Your task to perform on an android device: Open Google Maps Image 0: 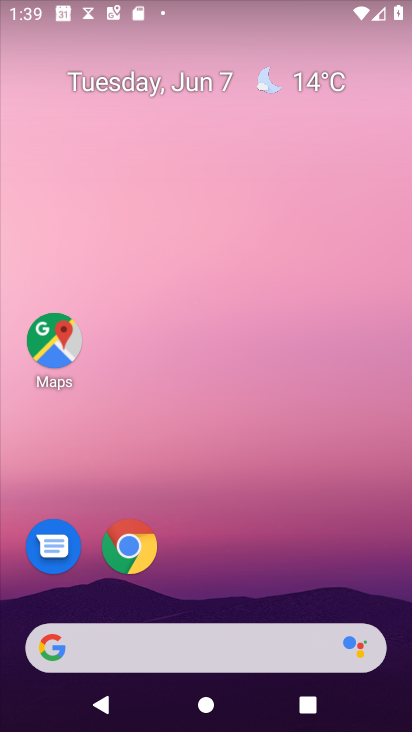
Step 0: press home button
Your task to perform on an android device: Open Google Maps Image 1: 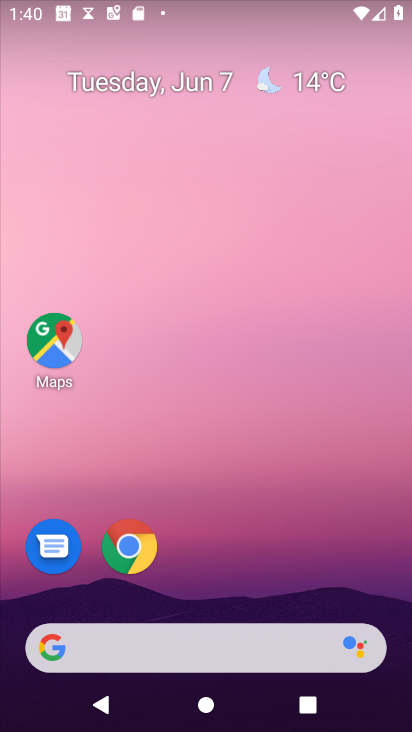
Step 1: click (48, 338)
Your task to perform on an android device: Open Google Maps Image 2: 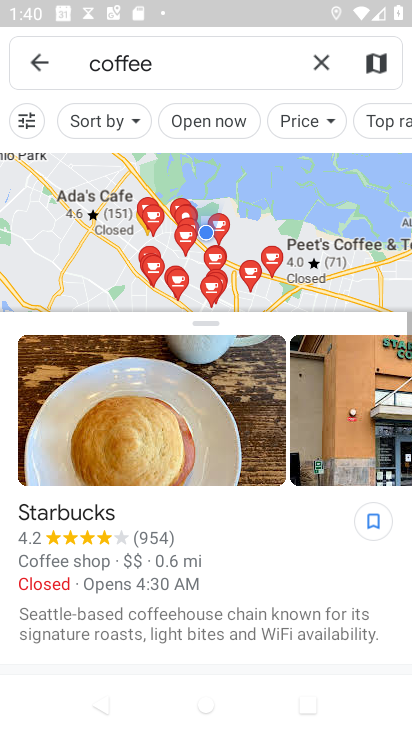
Step 2: click (315, 61)
Your task to perform on an android device: Open Google Maps Image 3: 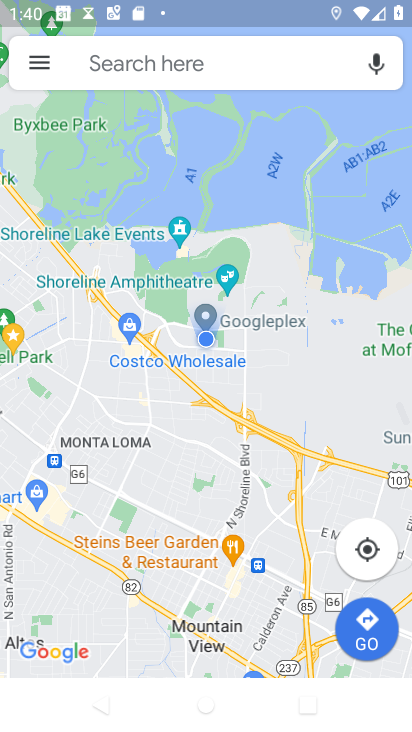
Step 3: task complete